Your task to perform on an android device: What's on my calendar tomorrow? Image 0: 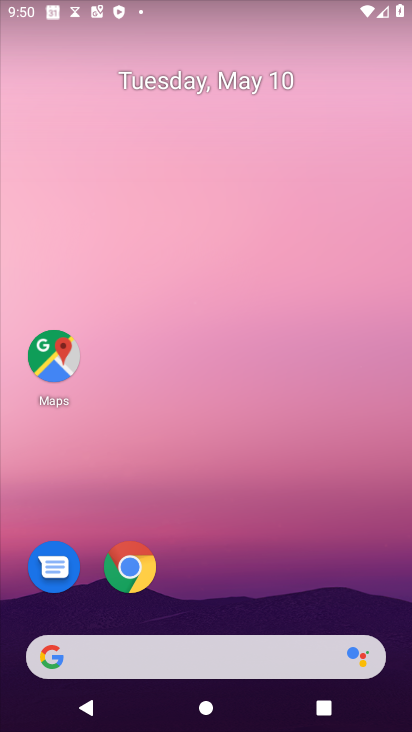
Step 0: press home button
Your task to perform on an android device: What's on my calendar tomorrow? Image 1: 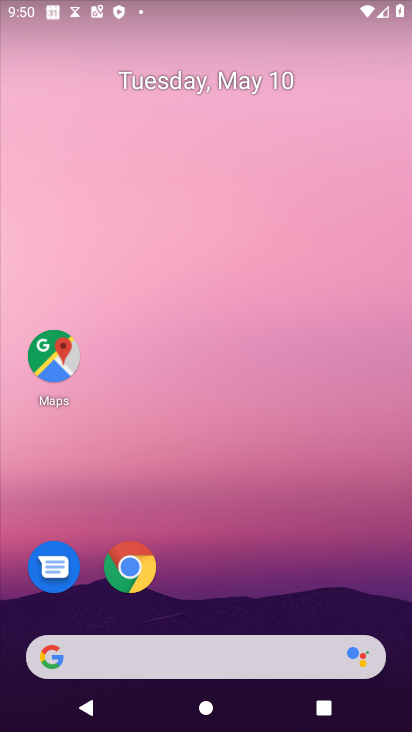
Step 1: drag from (98, 473) to (244, 144)
Your task to perform on an android device: What's on my calendar tomorrow? Image 2: 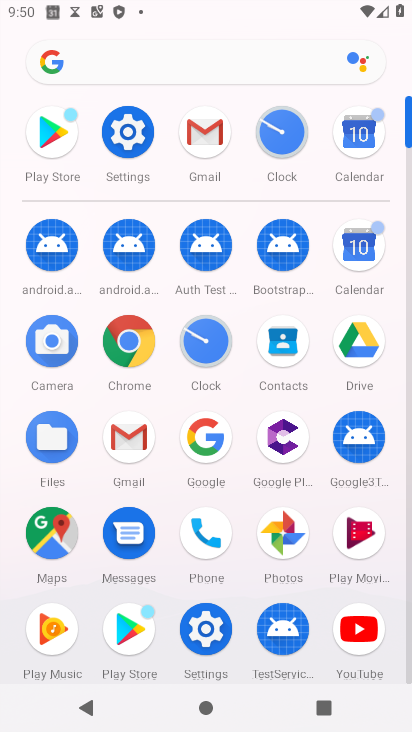
Step 2: click (361, 118)
Your task to perform on an android device: What's on my calendar tomorrow? Image 3: 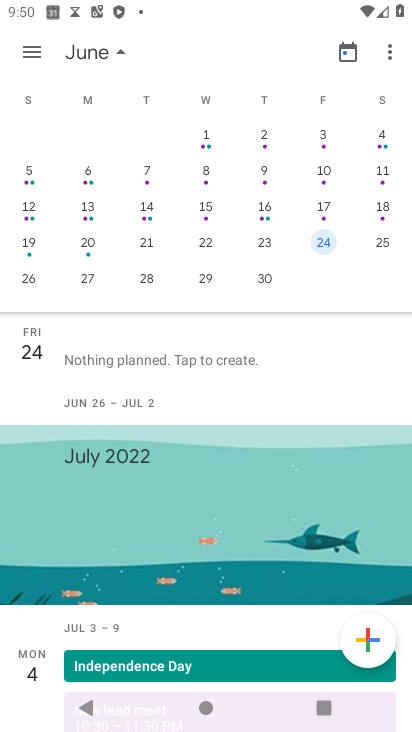
Step 3: drag from (60, 185) to (381, 176)
Your task to perform on an android device: What's on my calendar tomorrow? Image 4: 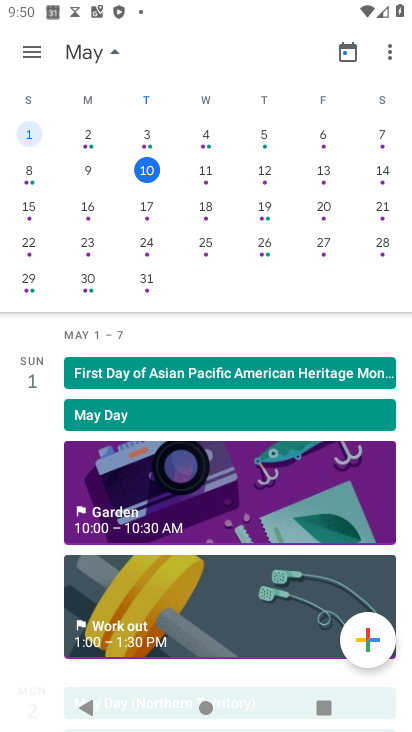
Step 4: click (200, 168)
Your task to perform on an android device: What's on my calendar tomorrow? Image 5: 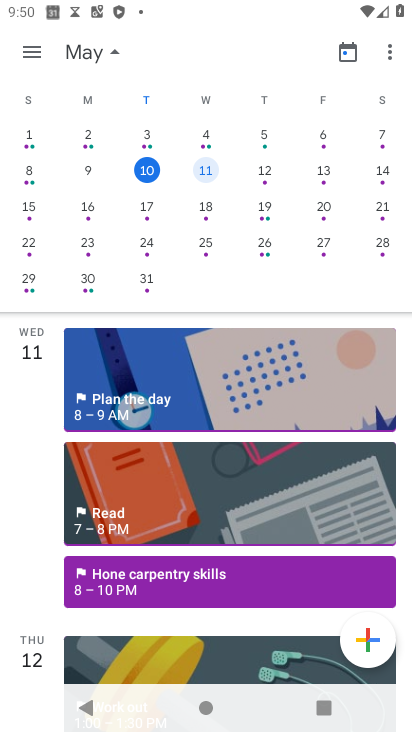
Step 5: click (260, 169)
Your task to perform on an android device: What's on my calendar tomorrow? Image 6: 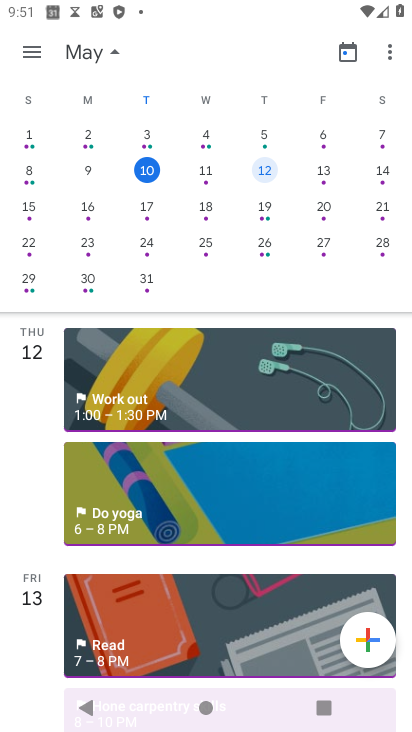
Step 6: task complete